Your task to perform on an android device: Search for "macbook pro 15 inch" on bestbuy.com, select the first entry, add it to the cart, then select checkout. Image 0: 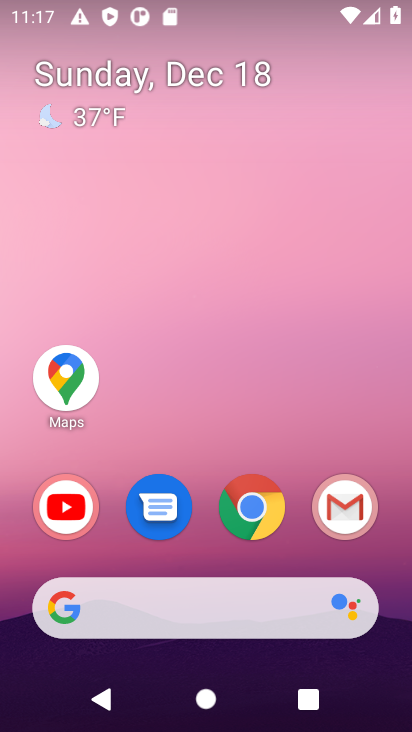
Step 0: click (259, 514)
Your task to perform on an android device: Search for "macbook pro 15 inch" on bestbuy.com, select the first entry, add it to the cart, then select checkout. Image 1: 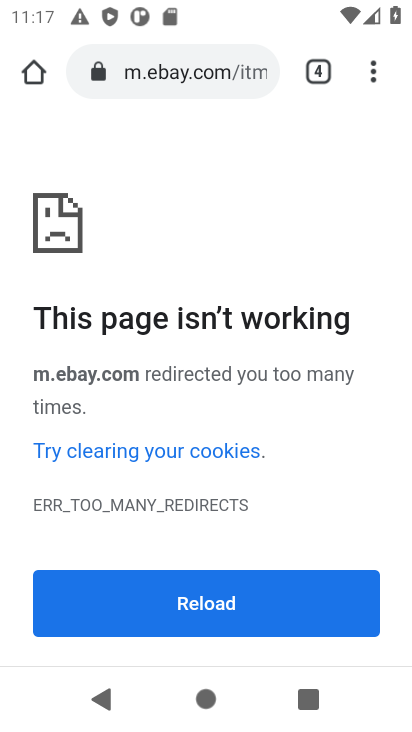
Step 1: click (186, 74)
Your task to perform on an android device: Search for "macbook pro 15 inch" on bestbuy.com, select the first entry, add it to the cart, then select checkout. Image 2: 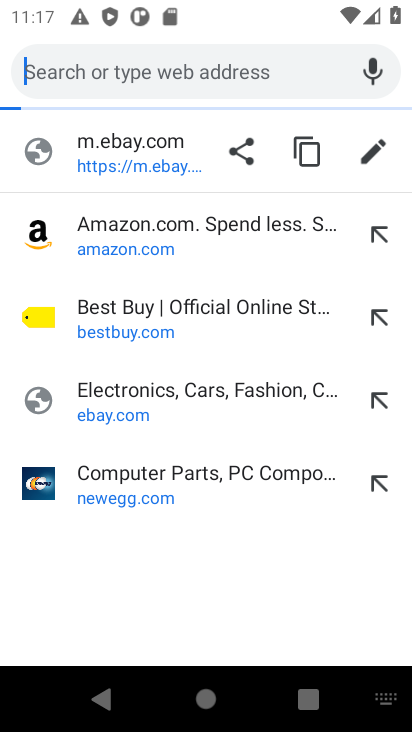
Step 2: click (119, 339)
Your task to perform on an android device: Search for "macbook pro 15 inch" on bestbuy.com, select the first entry, add it to the cart, then select checkout. Image 3: 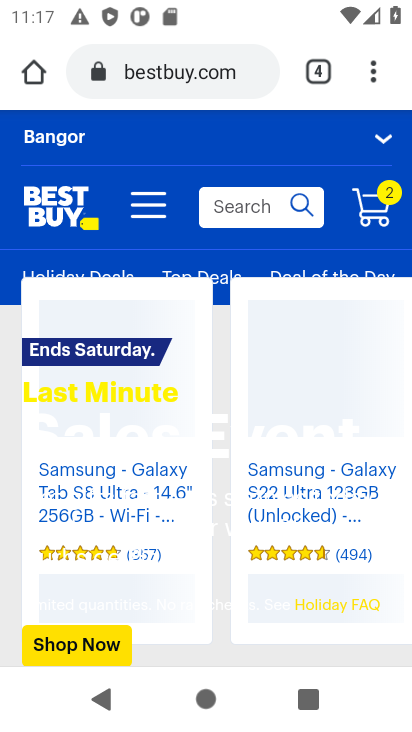
Step 3: click (226, 209)
Your task to perform on an android device: Search for "macbook pro 15 inch" on bestbuy.com, select the first entry, add it to the cart, then select checkout. Image 4: 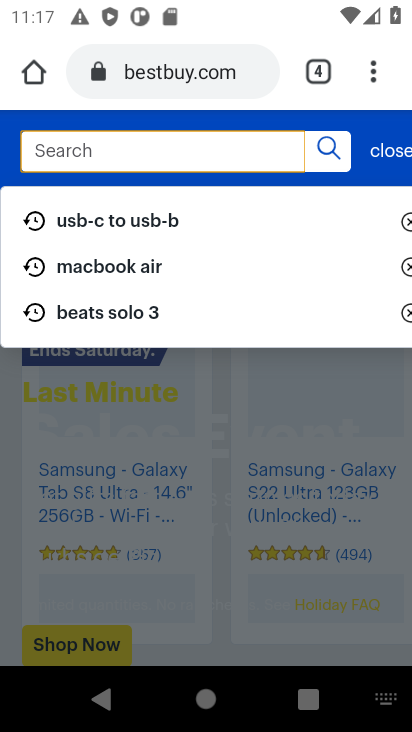
Step 4: type "macbook pro 15 inch"
Your task to perform on an android device: Search for "macbook pro 15 inch" on bestbuy.com, select the first entry, add it to the cart, then select checkout. Image 5: 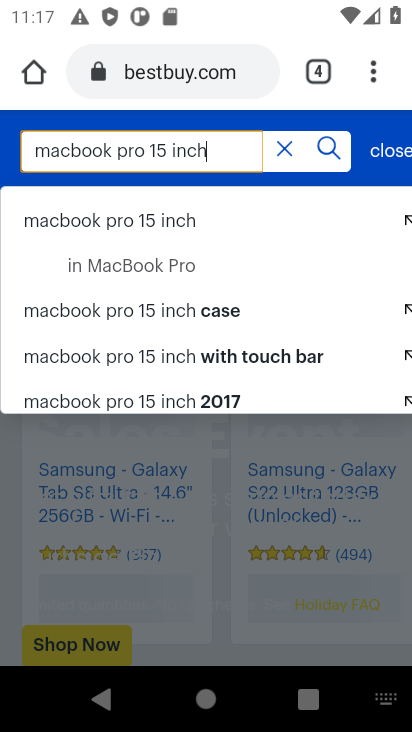
Step 5: click (80, 229)
Your task to perform on an android device: Search for "macbook pro 15 inch" on bestbuy.com, select the first entry, add it to the cart, then select checkout. Image 6: 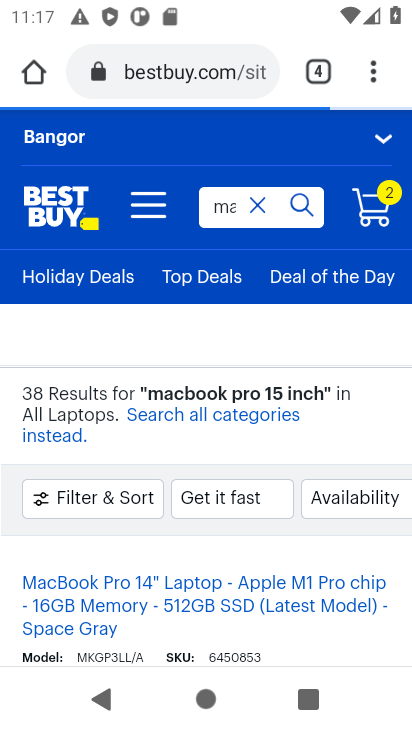
Step 6: task complete